Your task to perform on an android device: Open Yahoo.com Image 0: 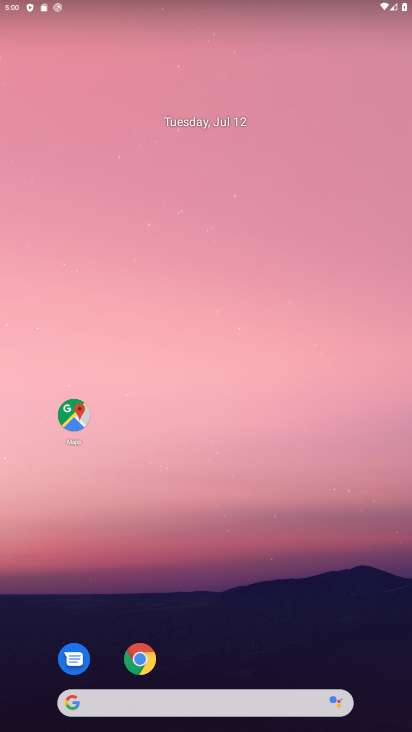
Step 0: click (139, 659)
Your task to perform on an android device: Open Yahoo.com Image 1: 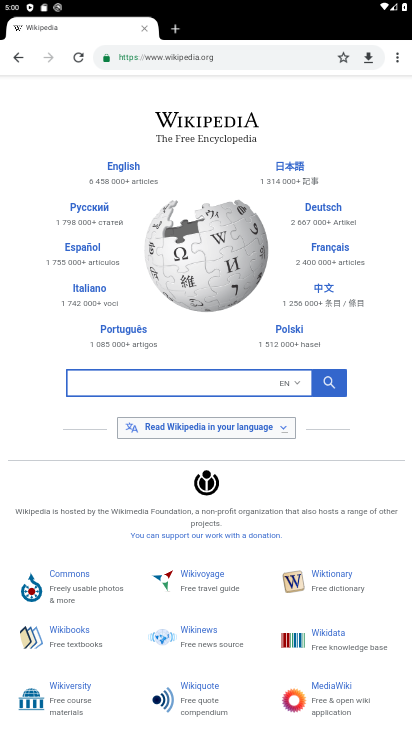
Step 1: click (225, 60)
Your task to perform on an android device: Open Yahoo.com Image 2: 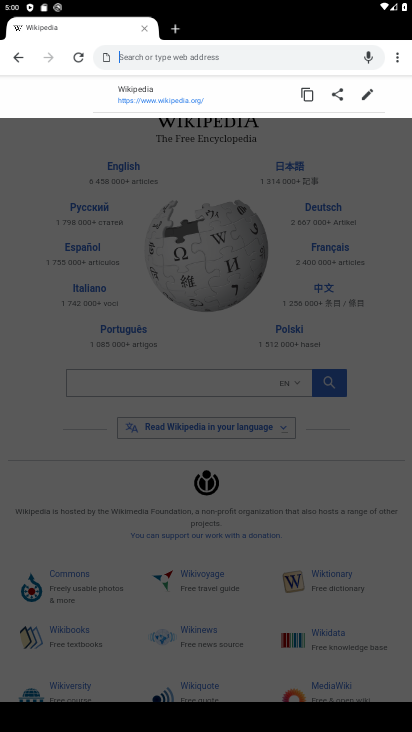
Step 2: type "yahoo.com"
Your task to perform on an android device: Open Yahoo.com Image 3: 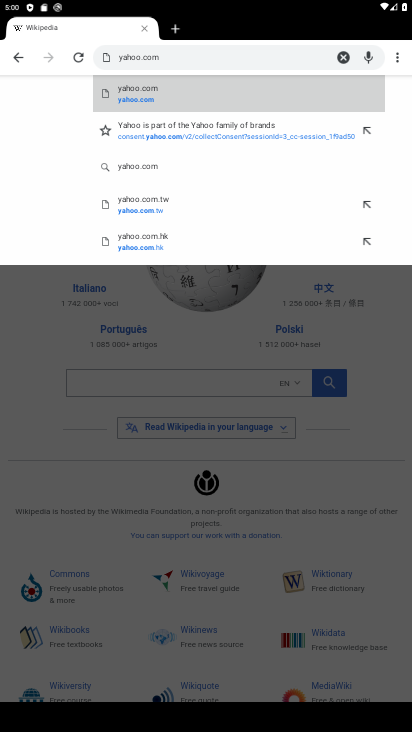
Step 3: click (133, 84)
Your task to perform on an android device: Open Yahoo.com Image 4: 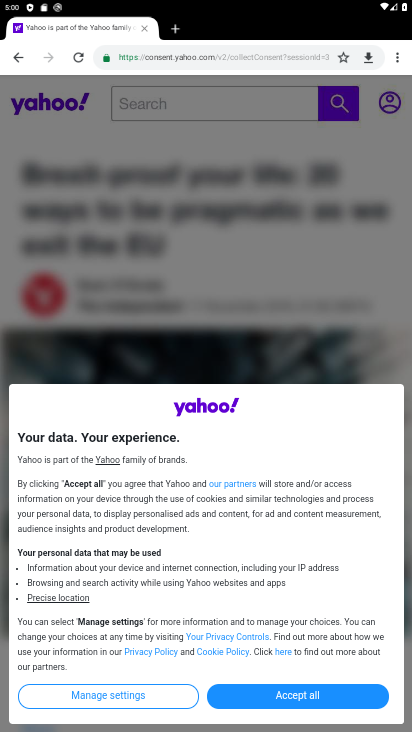
Step 4: click (291, 695)
Your task to perform on an android device: Open Yahoo.com Image 5: 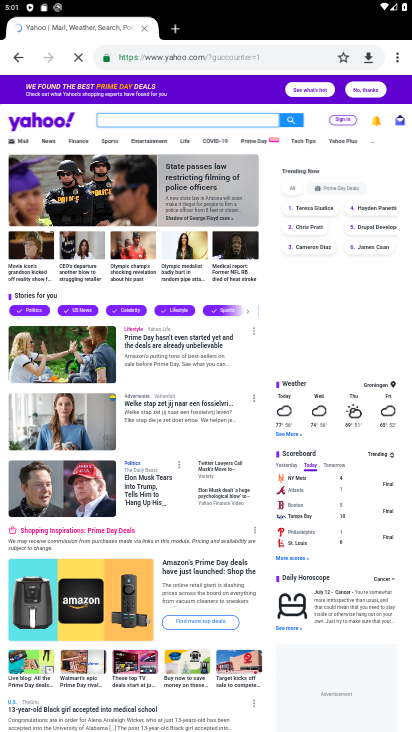
Step 5: task complete